Your task to perform on an android device: Open wifi settings Image 0: 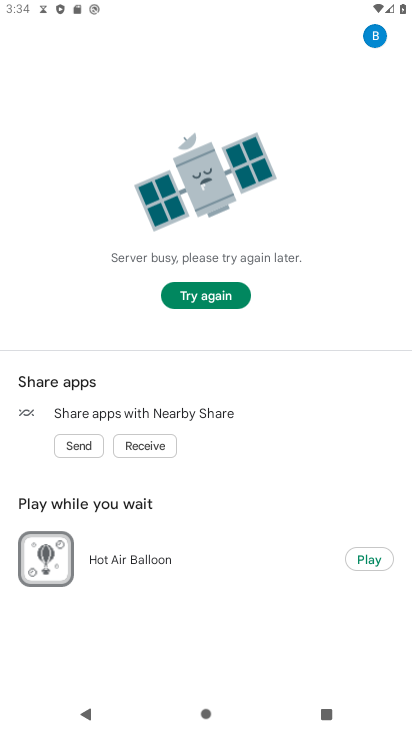
Step 0: press home button
Your task to perform on an android device: Open wifi settings Image 1: 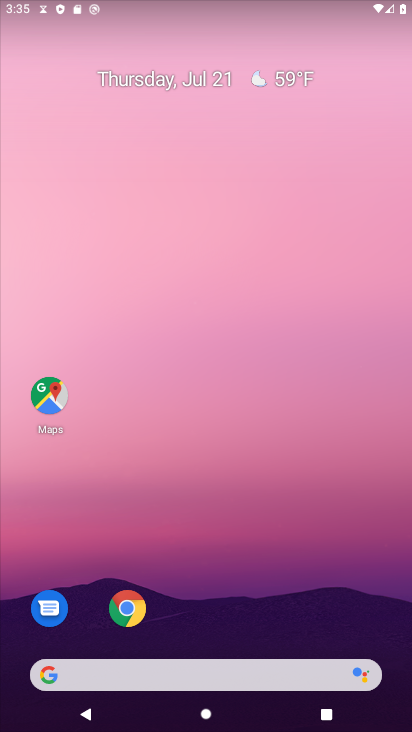
Step 1: drag from (214, 639) to (242, 134)
Your task to perform on an android device: Open wifi settings Image 2: 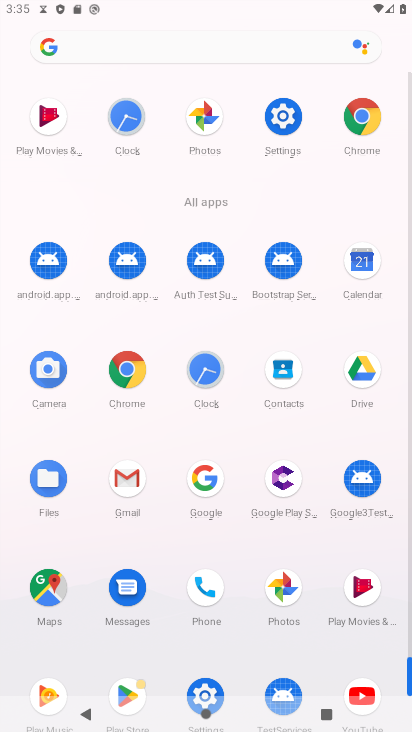
Step 2: click (291, 110)
Your task to perform on an android device: Open wifi settings Image 3: 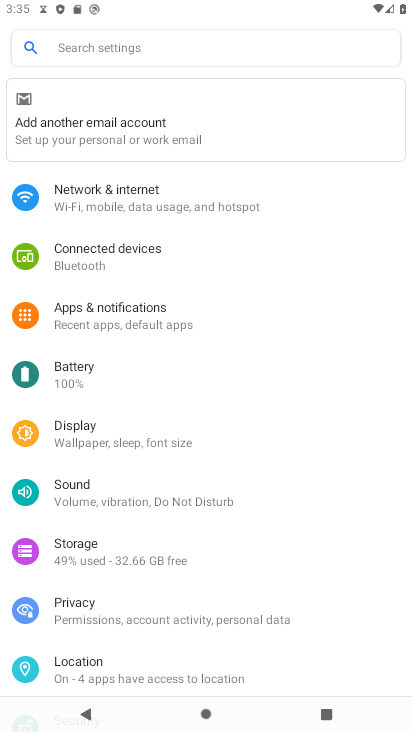
Step 3: click (71, 197)
Your task to perform on an android device: Open wifi settings Image 4: 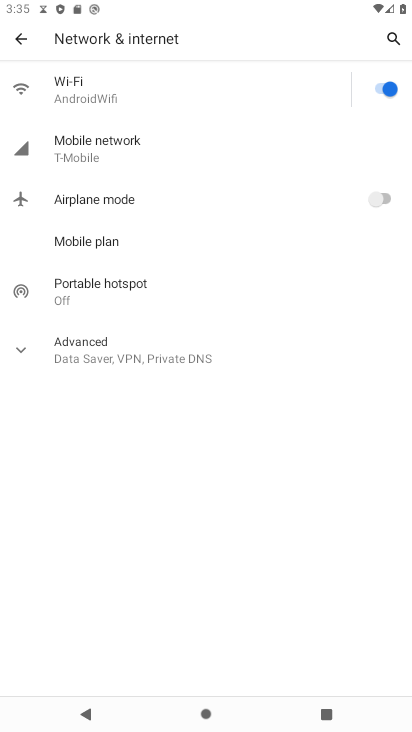
Step 4: click (83, 96)
Your task to perform on an android device: Open wifi settings Image 5: 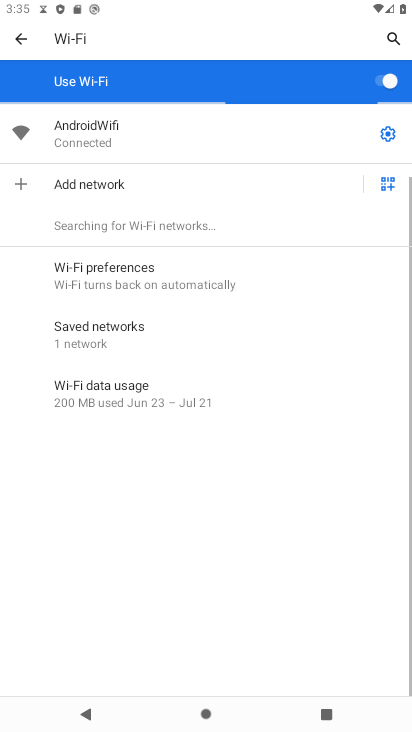
Step 5: task complete